Your task to perform on an android device: Open Youtube and go to the subscriptions tab Image 0: 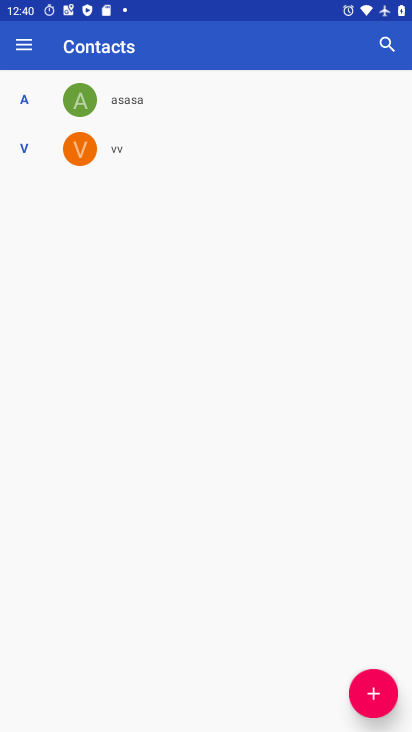
Step 0: press home button
Your task to perform on an android device: Open Youtube and go to the subscriptions tab Image 1: 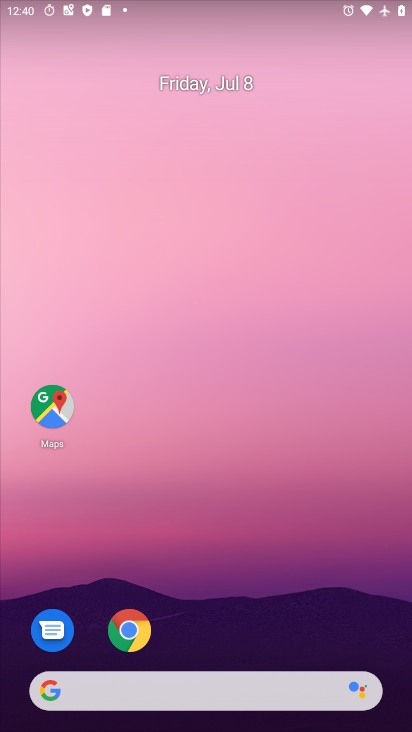
Step 1: drag from (204, 649) to (171, 185)
Your task to perform on an android device: Open Youtube and go to the subscriptions tab Image 2: 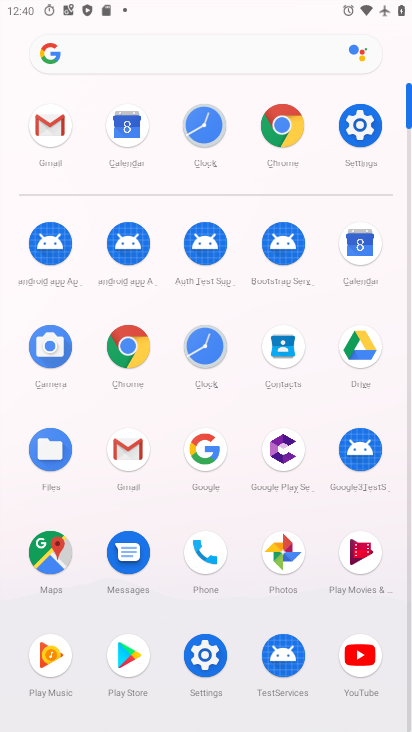
Step 2: click (363, 664)
Your task to perform on an android device: Open Youtube and go to the subscriptions tab Image 3: 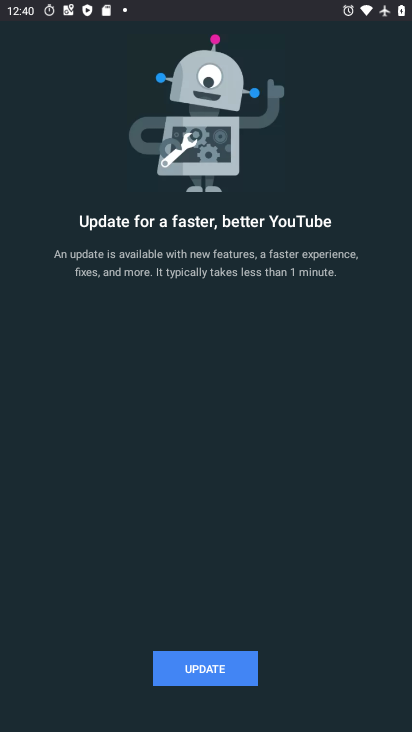
Step 3: click (217, 674)
Your task to perform on an android device: Open Youtube and go to the subscriptions tab Image 4: 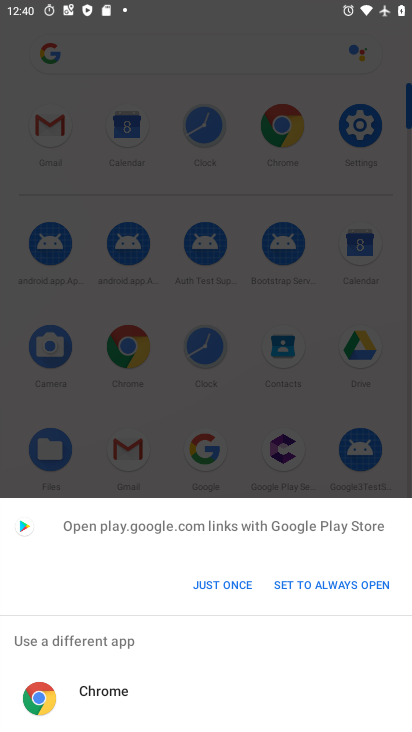
Step 4: click (200, 585)
Your task to perform on an android device: Open Youtube and go to the subscriptions tab Image 5: 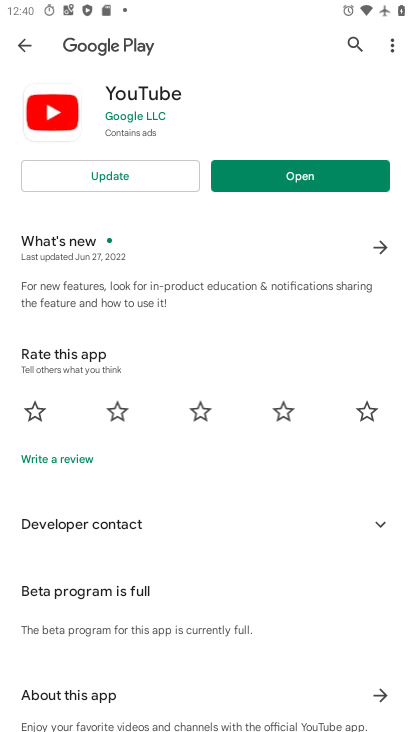
Step 5: click (121, 172)
Your task to perform on an android device: Open Youtube and go to the subscriptions tab Image 6: 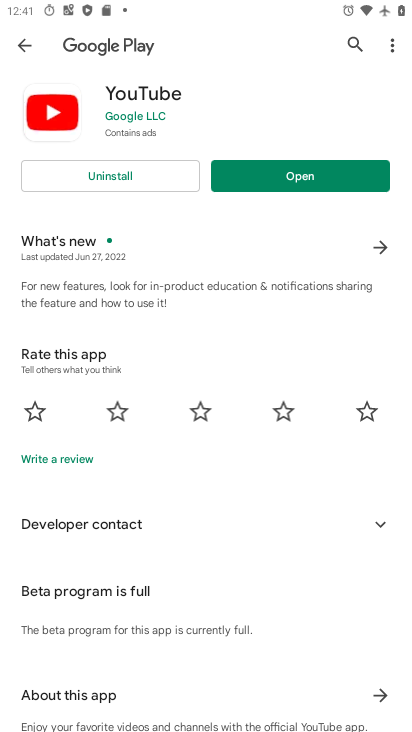
Step 6: click (243, 173)
Your task to perform on an android device: Open Youtube and go to the subscriptions tab Image 7: 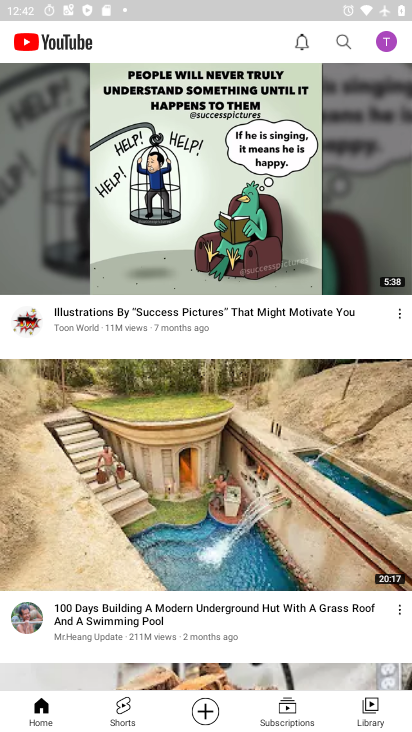
Step 7: click (292, 691)
Your task to perform on an android device: Open Youtube and go to the subscriptions tab Image 8: 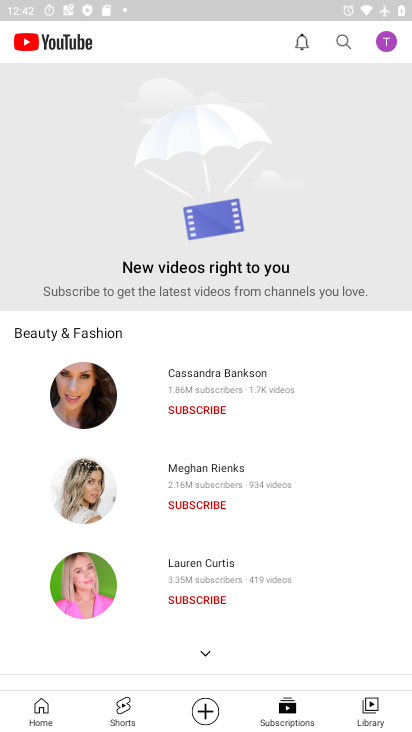
Step 8: task complete